Your task to perform on an android device: open app "Walmart Shopping & Grocery" (install if not already installed) and enter user name: "Hans@icloud.com" and password: "executing" Image 0: 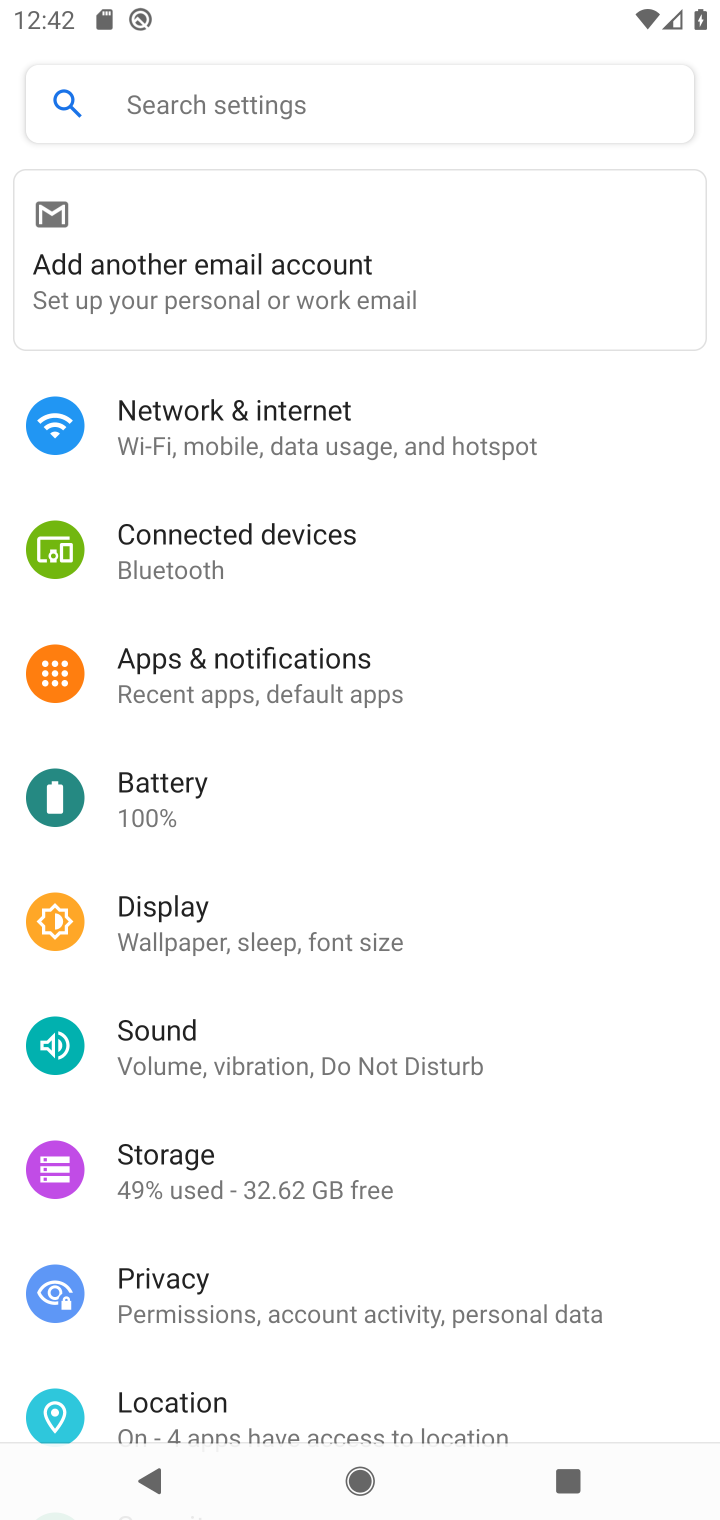
Step 0: press home button
Your task to perform on an android device: open app "Walmart Shopping & Grocery" (install if not already installed) and enter user name: "Hans@icloud.com" and password: "executing" Image 1: 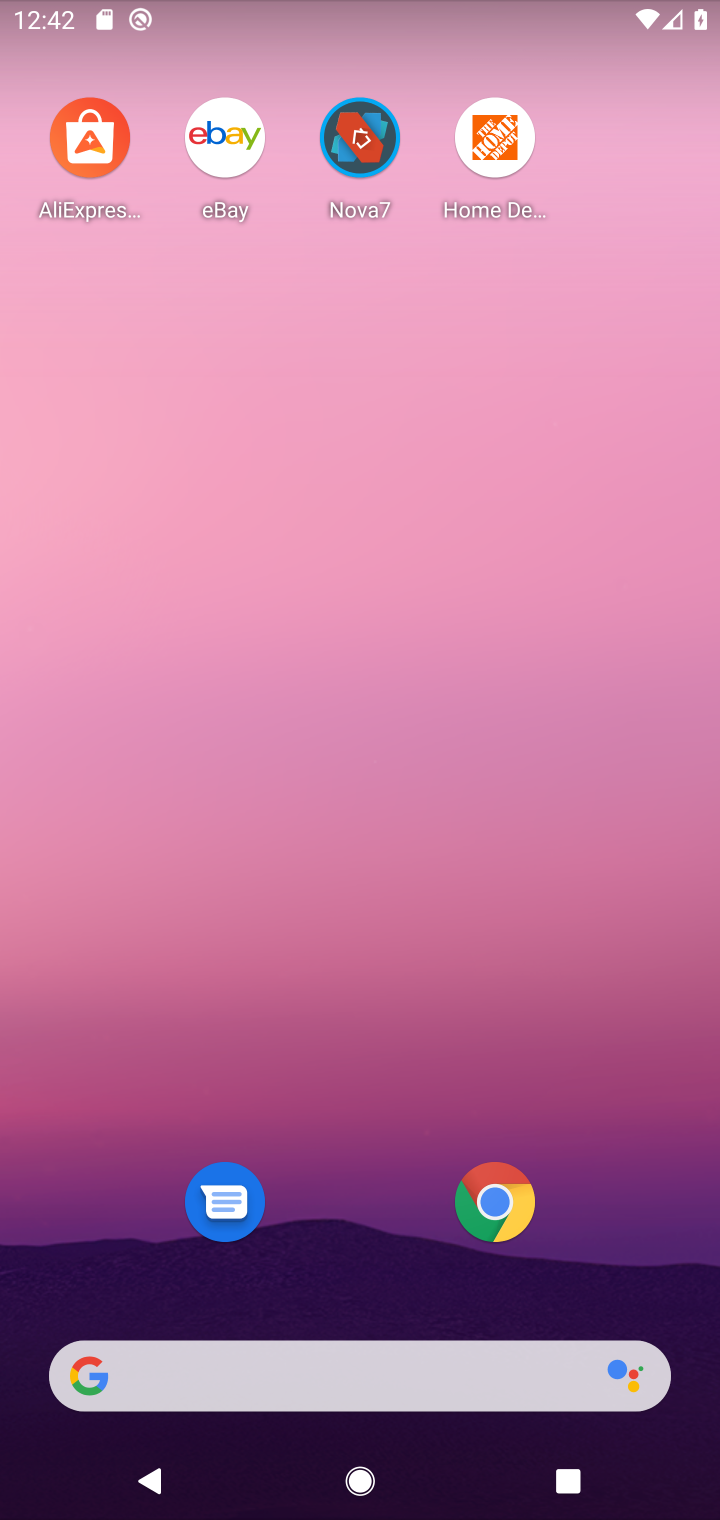
Step 1: drag from (397, 1368) to (339, 95)
Your task to perform on an android device: open app "Walmart Shopping & Grocery" (install if not already installed) and enter user name: "Hans@icloud.com" and password: "executing" Image 2: 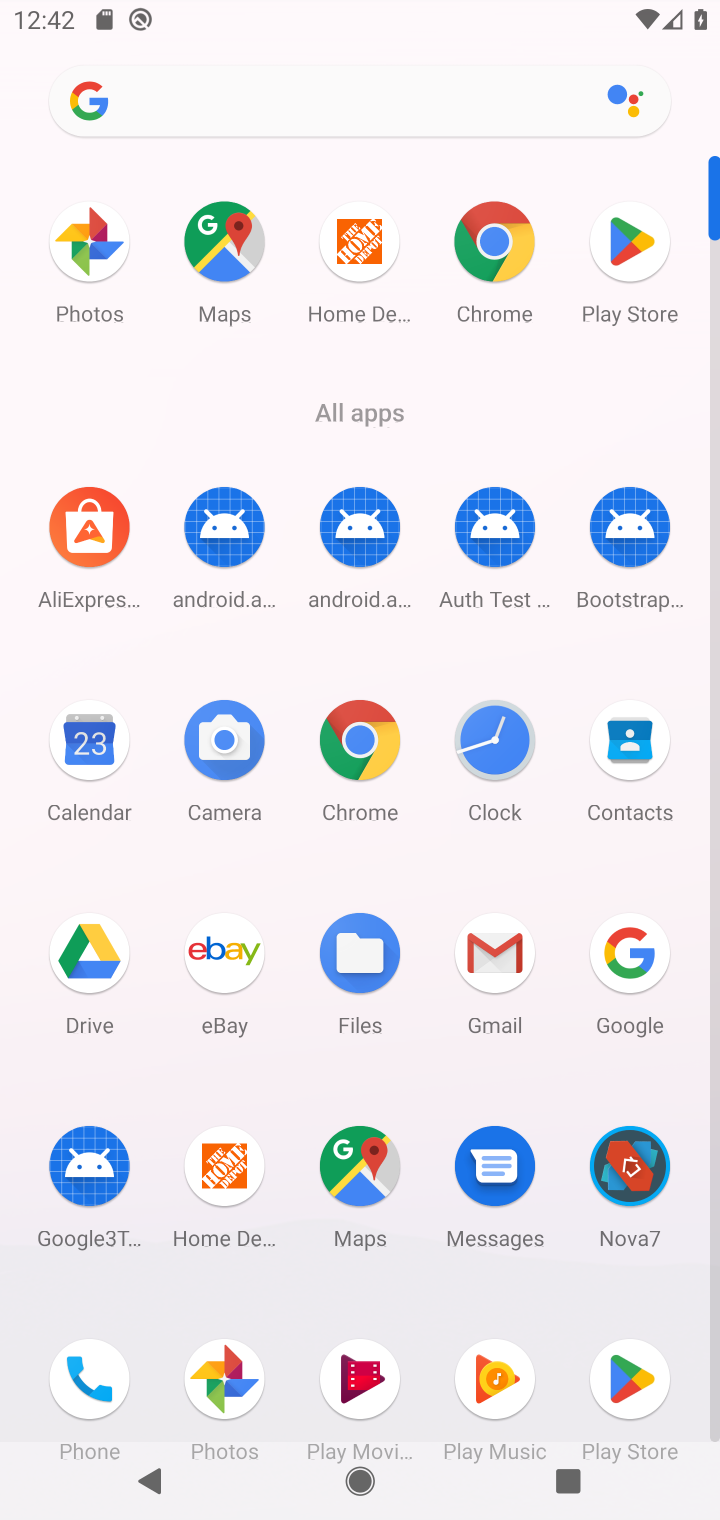
Step 2: click (622, 233)
Your task to perform on an android device: open app "Walmart Shopping & Grocery" (install if not already installed) and enter user name: "Hans@icloud.com" and password: "executing" Image 3: 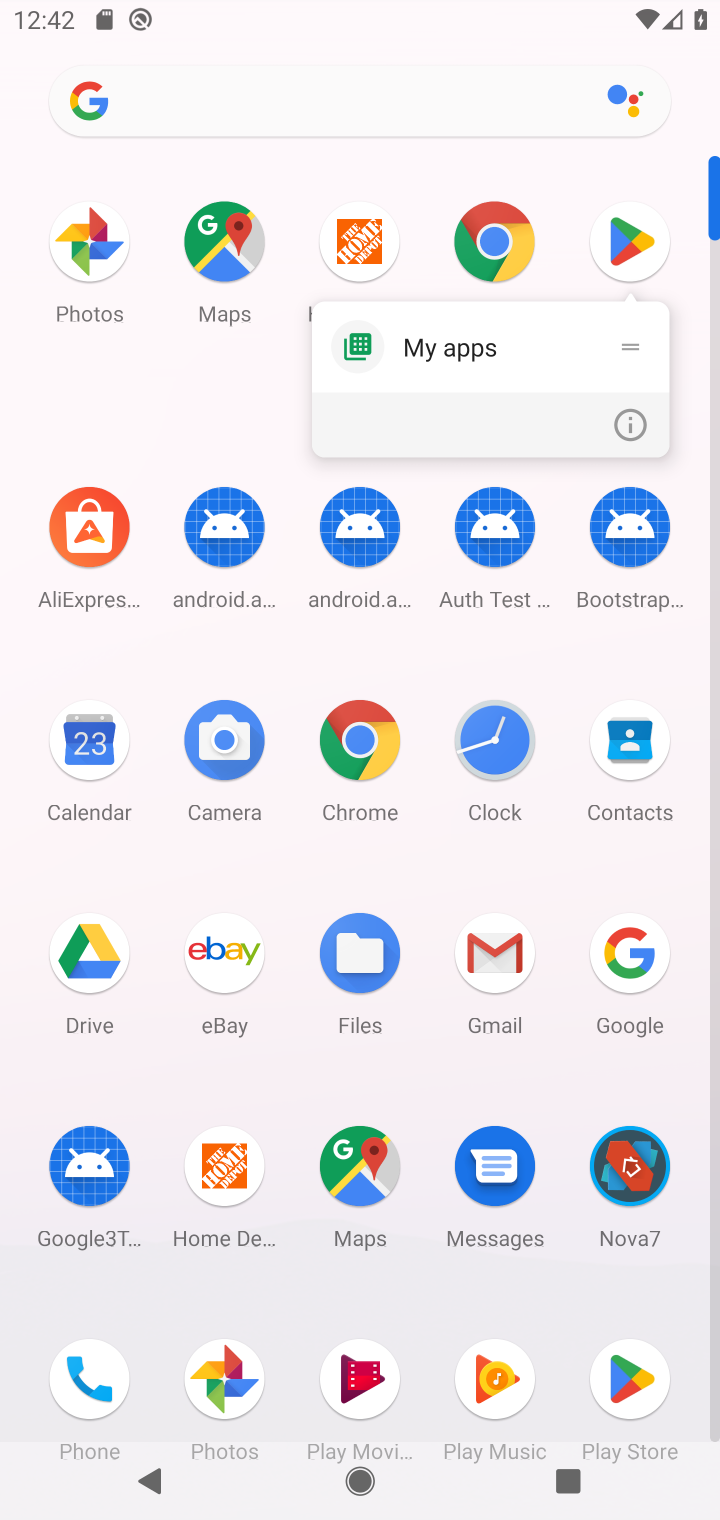
Step 3: click (632, 244)
Your task to perform on an android device: open app "Walmart Shopping & Grocery" (install if not already installed) and enter user name: "Hans@icloud.com" and password: "executing" Image 4: 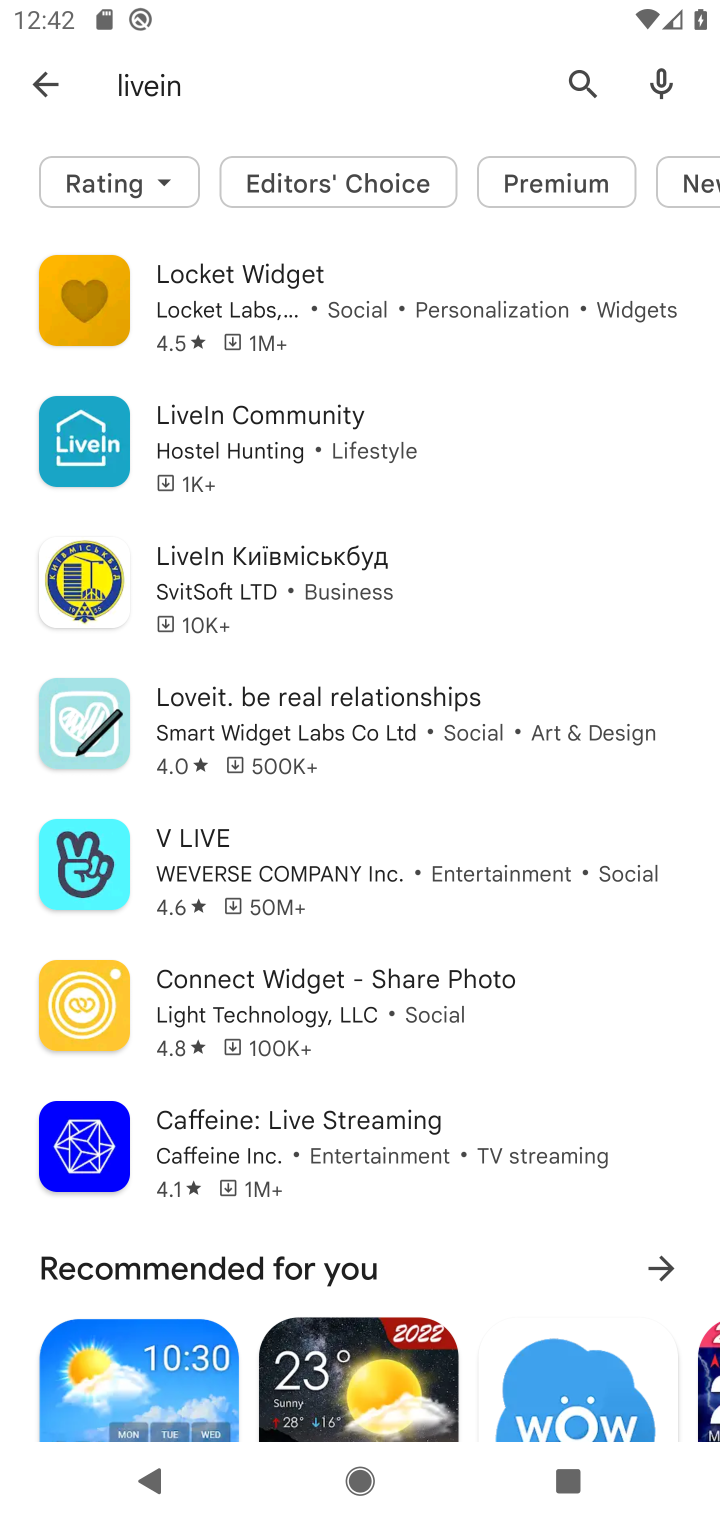
Step 4: click (583, 86)
Your task to perform on an android device: open app "Walmart Shopping & Grocery" (install if not already installed) and enter user name: "Hans@icloud.com" and password: "executing" Image 5: 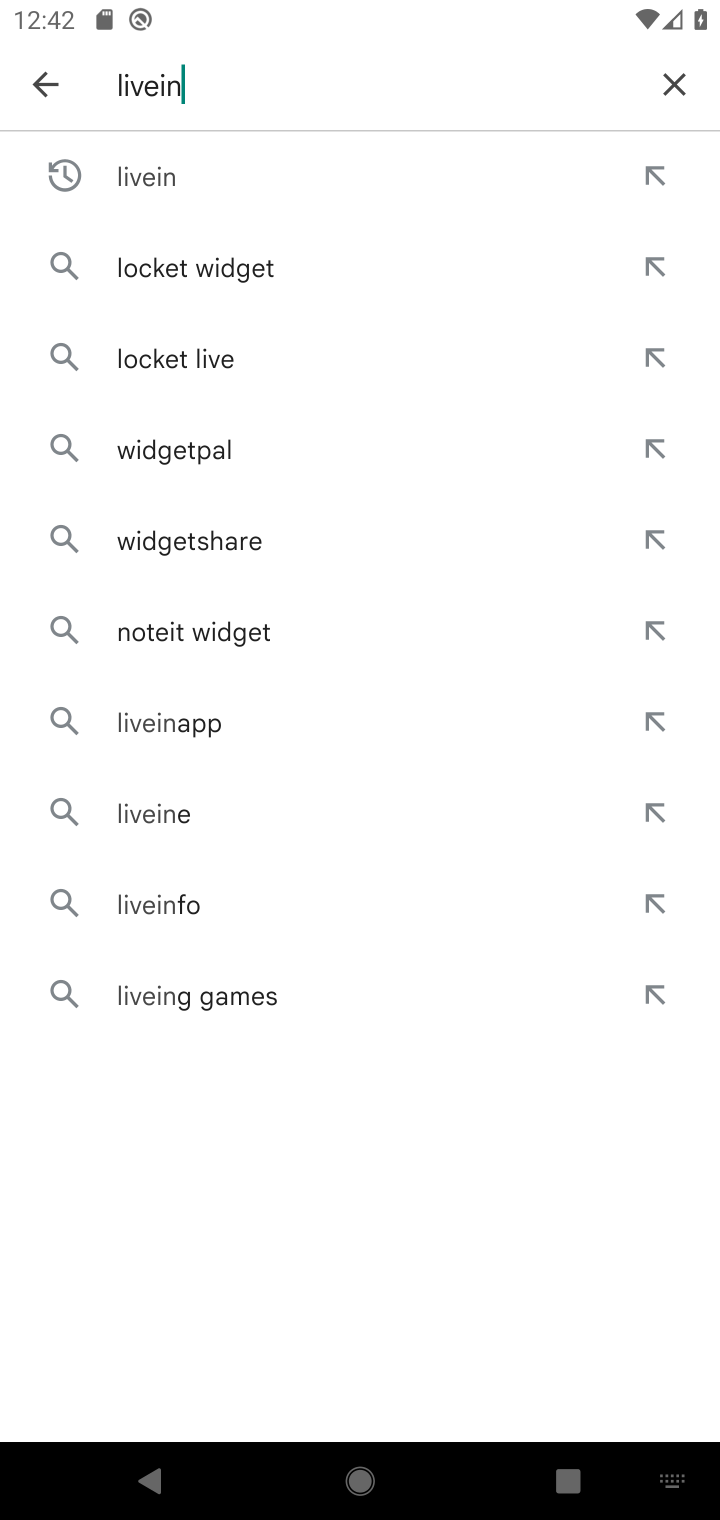
Step 5: click (680, 80)
Your task to perform on an android device: open app "Walmart Shopping & Grocery" (install if not already installed) and enter user name: "Hans@icloud.com" and password: "executing" Image 6: 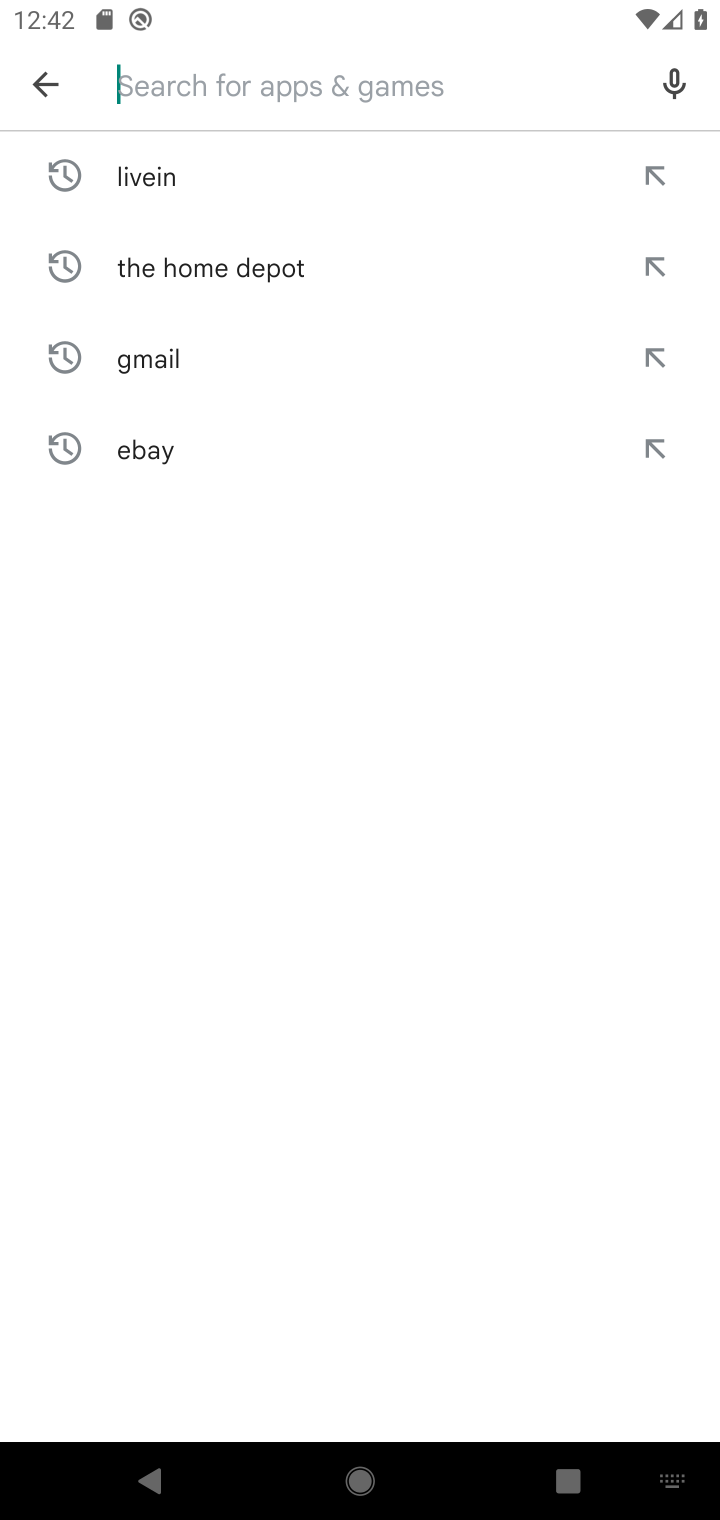
Step 6: type "wakmart"
Your task to perform on an android device: open app "Walmart Shopping & Grocery" (install if not already installed) and enter user name: "Hans@icloud.com" and password: "executing" Image 7: 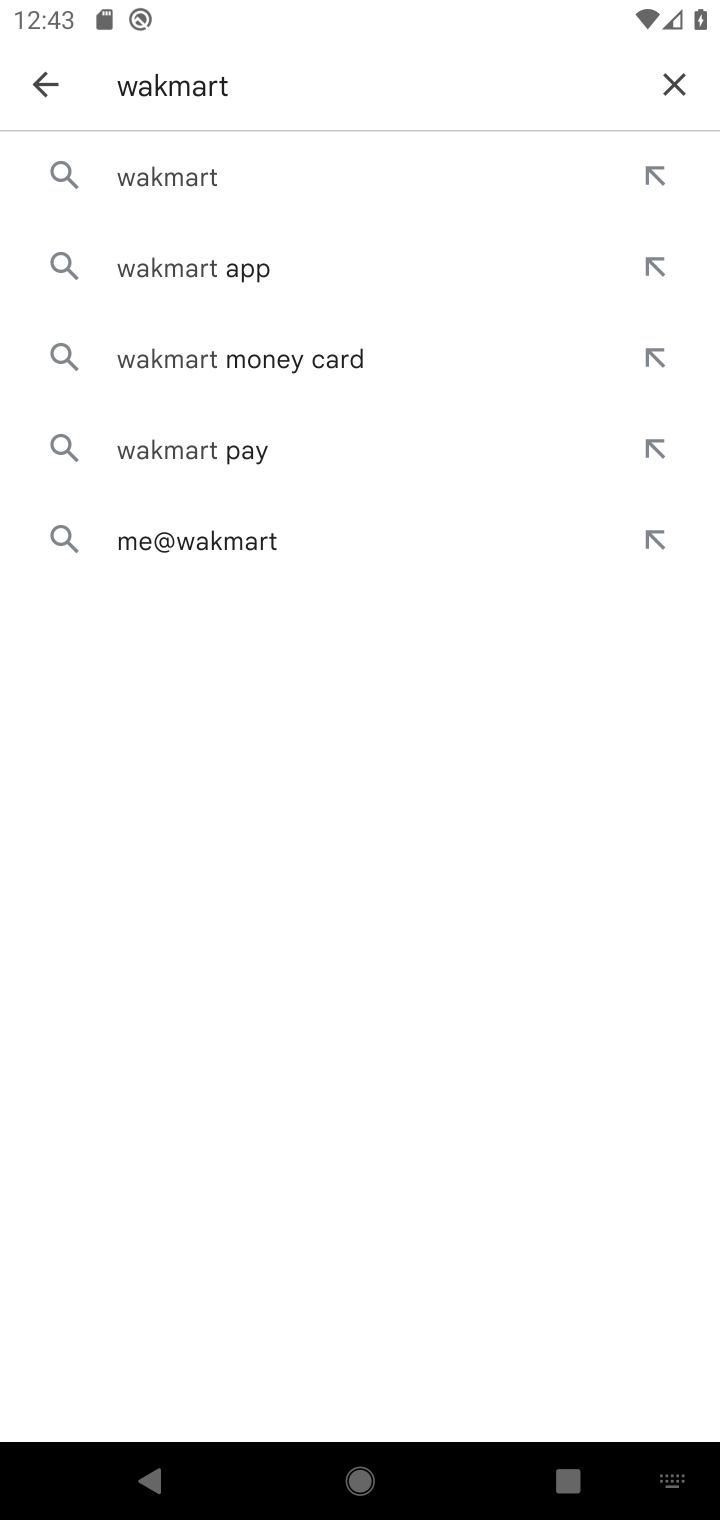
Step 7: click (239, 173)
Your task to perform on an android device: open app "Walmart Shopping & Grocery" (install if not already installed) and enter user name: "Hans@icloud.com" and password: "executing" Image 8: 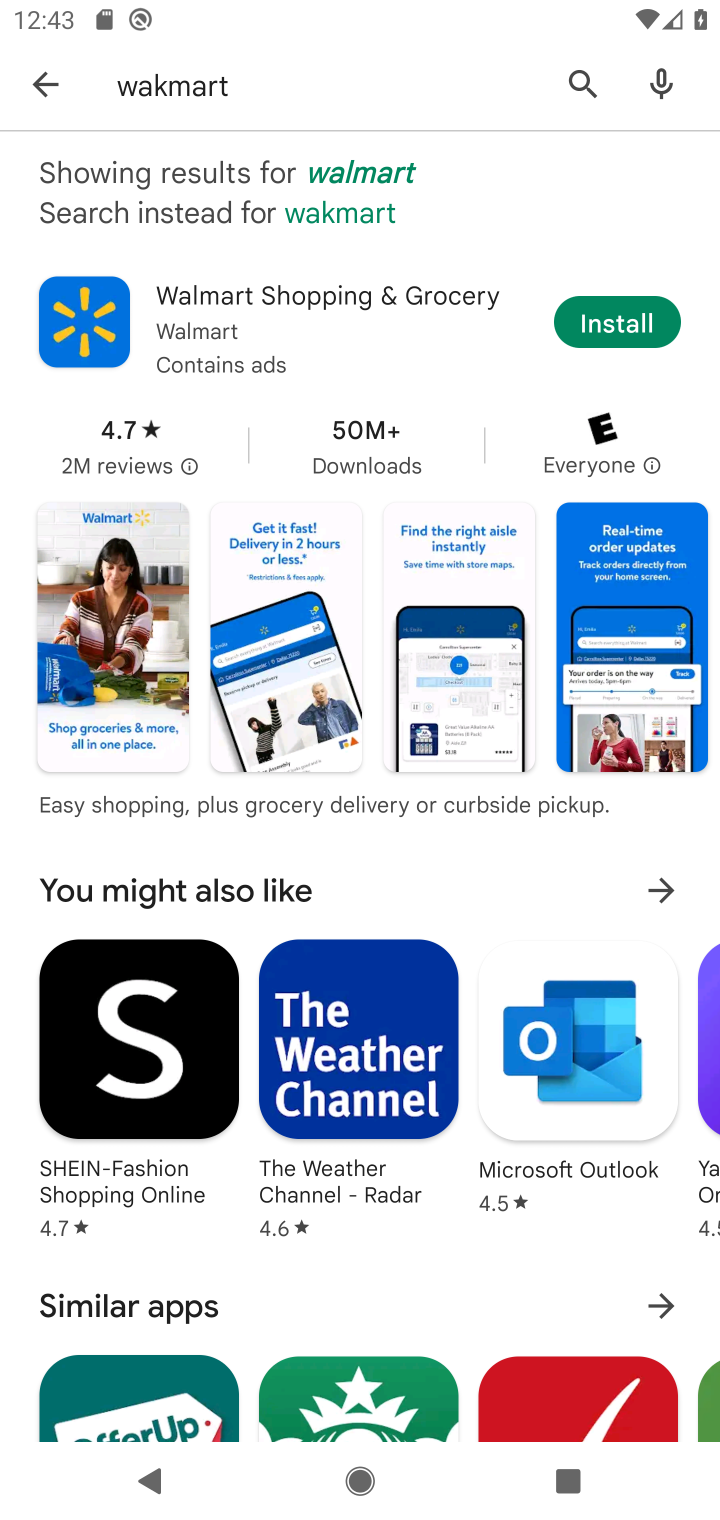
Step 8: click (596, 312)
Your task to perform on an android device: open app "Walmart Shopping & Grocery" (install if not already installed) and enter user name: "Hans@icloud.com" and password: "executing" Image 9: 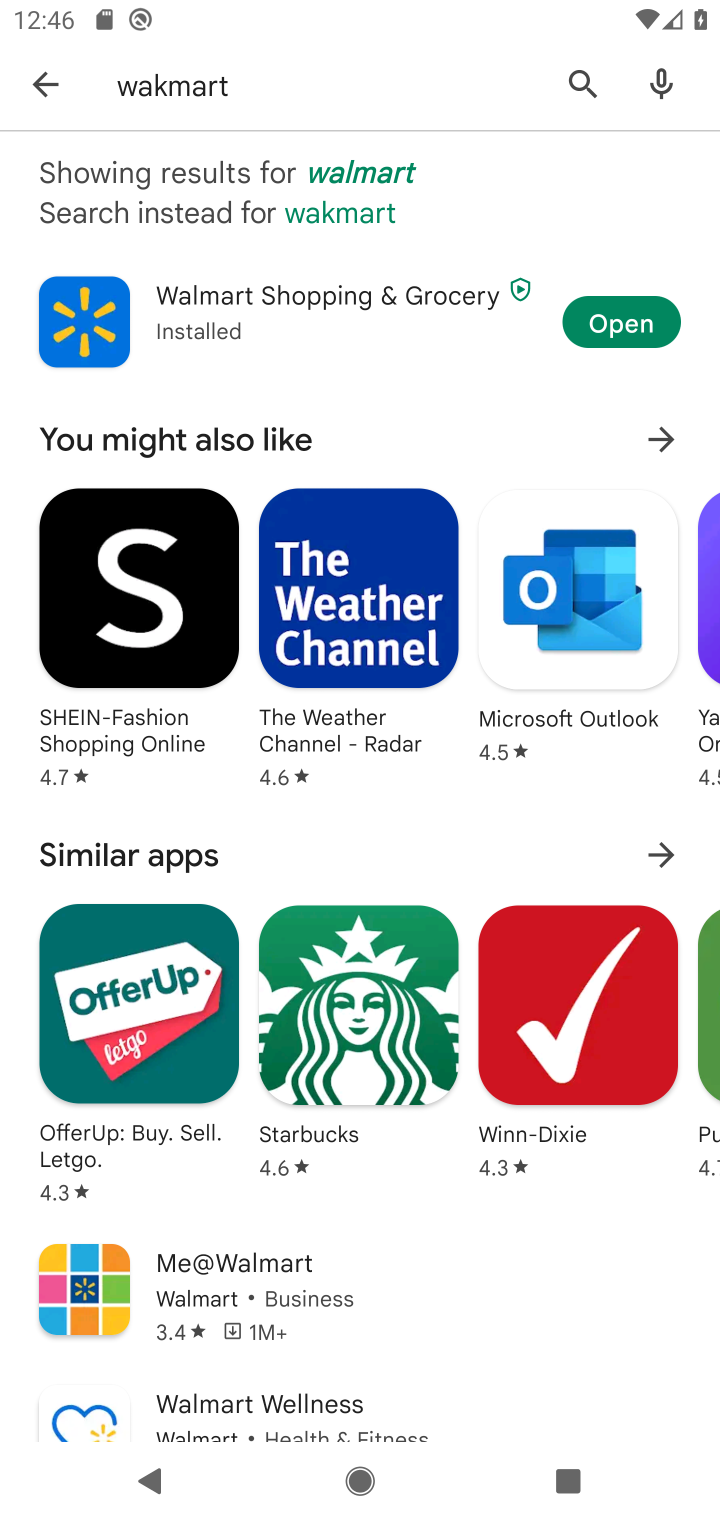
Step 9: click (581, 307)
Your task to perform on an android device: open app "Walmart Shopping & Grocery" (install if not already installed) and enter user name: "Hans@icloud.com" and password: "executing" Image 10: 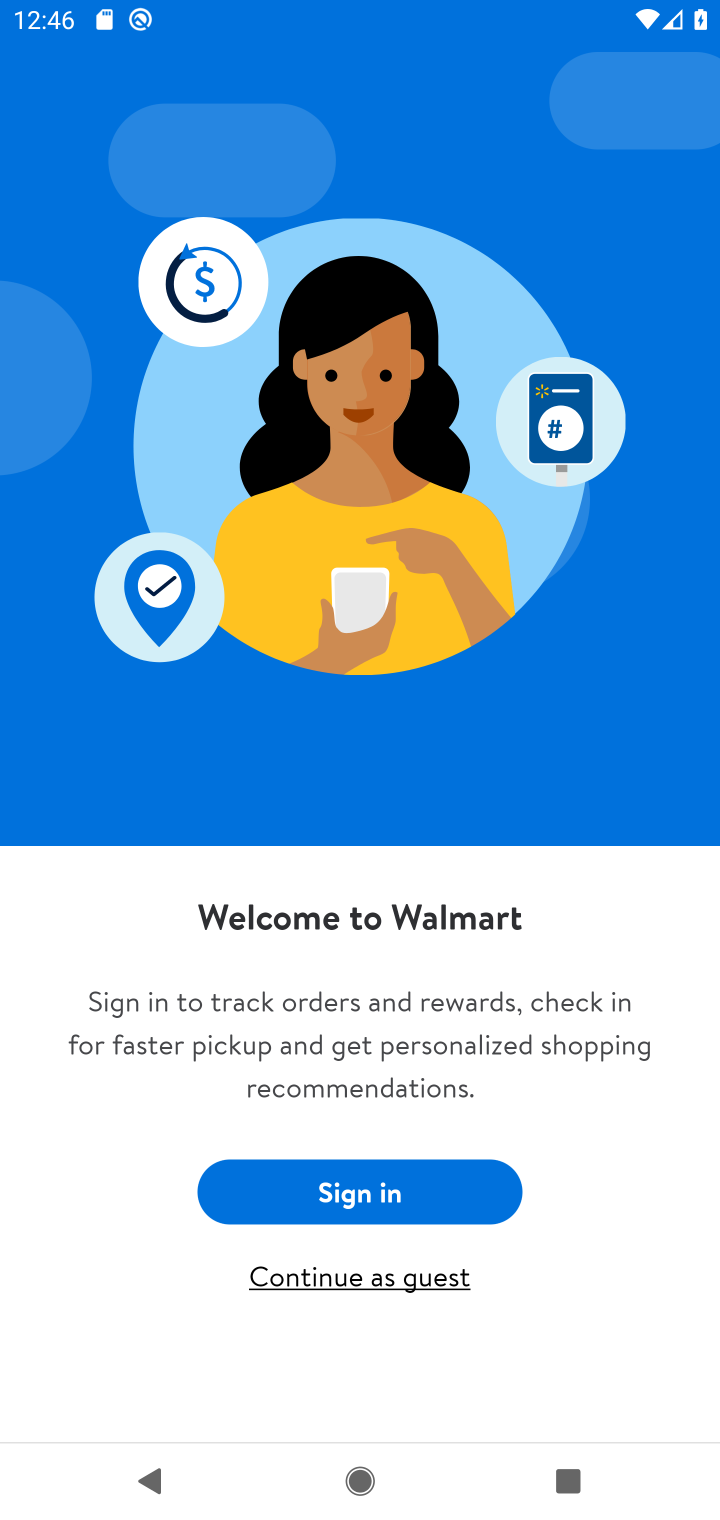
Step 10: click (289, 1209)
Your task to perform on an android device: open app "Walmart Shopping & Grocery" (install if not already installed) and enter user name: "Hans@icloud.com" and password: "executing" Image 11: 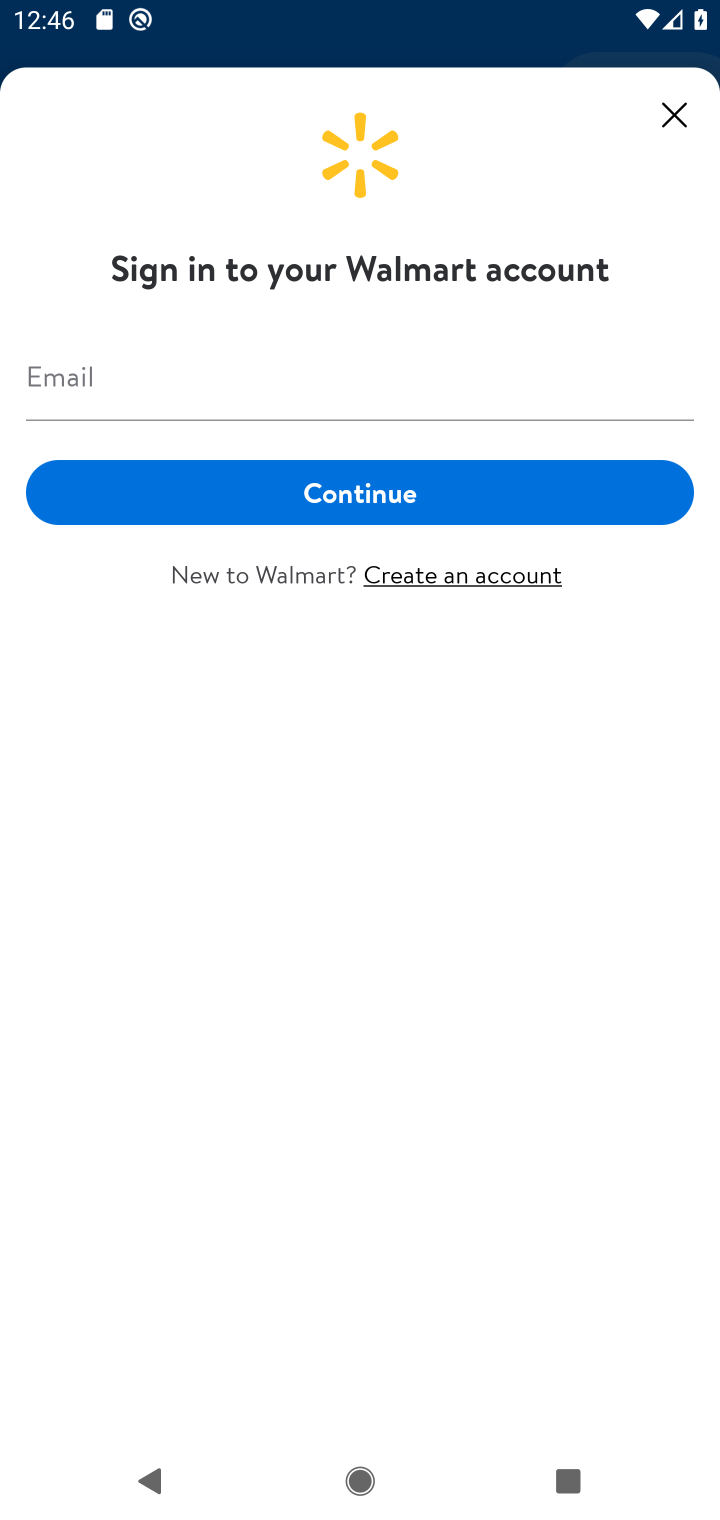
Step 11: click (238, 391)
Your task to perform on an android device: open app "Walmart Shopping & Grocery" (install if not already installed) and enter user name: "Hans@icloud.com" and password: "executing" Image 12: 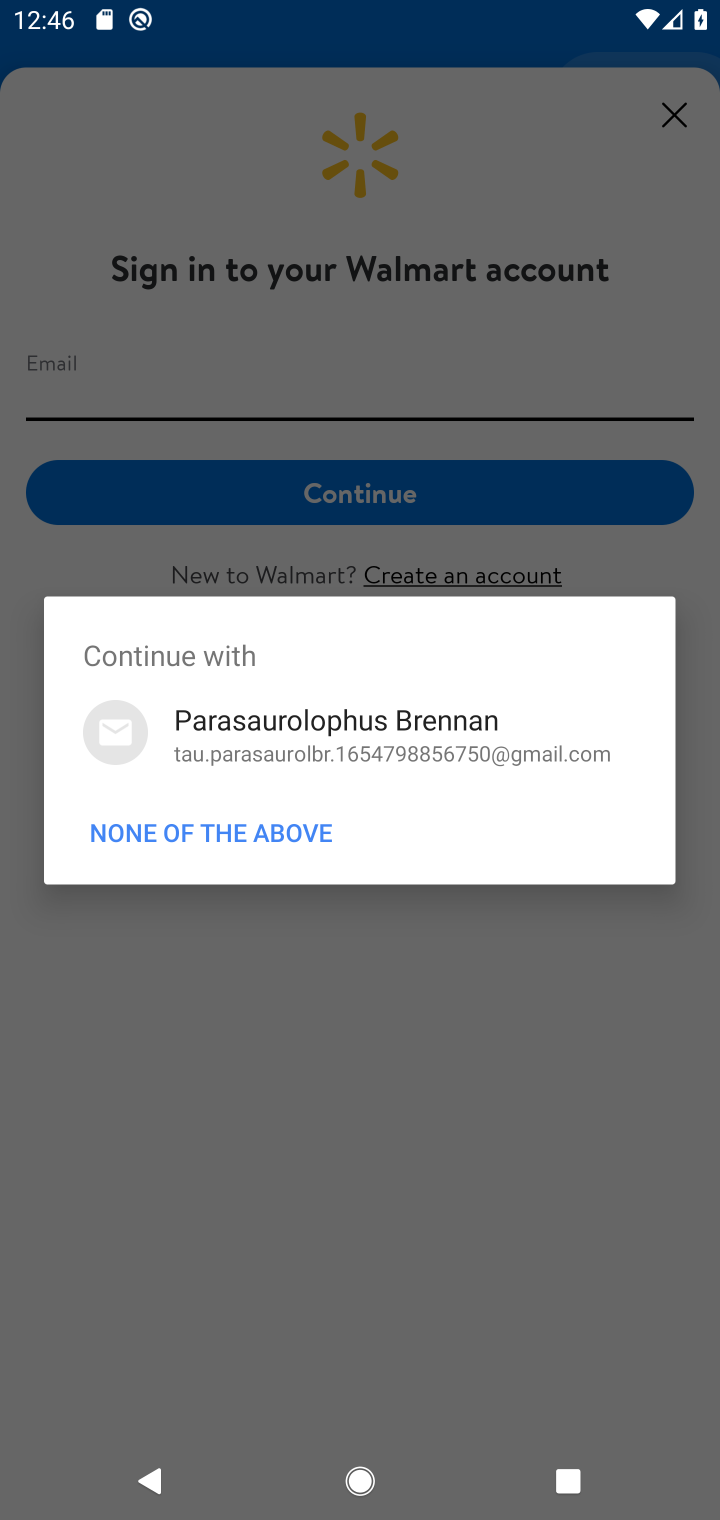
Step 12: click (175, 830)
Your task to perform on an android device: open app "Walmart Shopping & Grocery" (install if not already installed) and enter user name: "Hans@icloud.com" and password: "executing" Image 13: 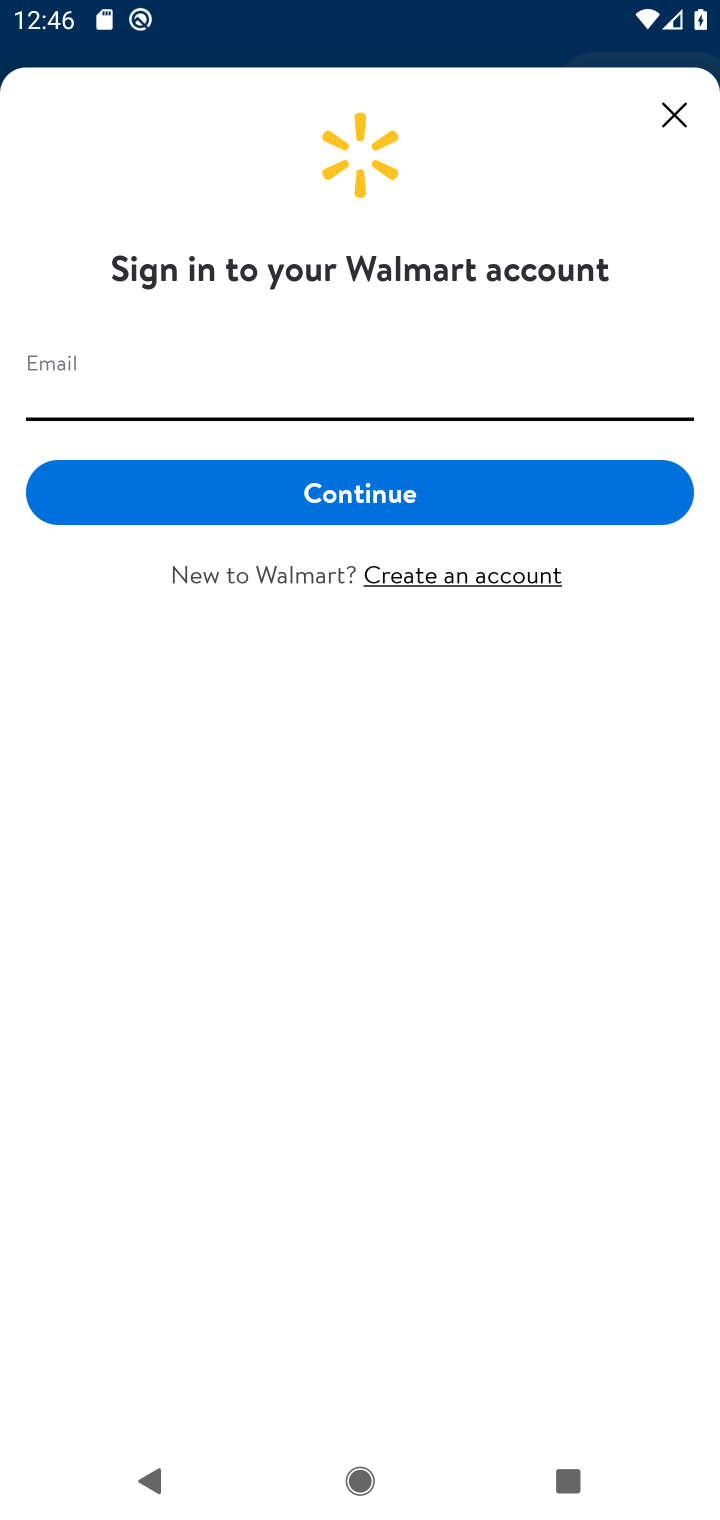
Step 13: click (344, 368)
Your task to perform on an android device: open app "Walmart Shopping & Grocery" (install if not already installed) and enter user name: "Hans@icloud.com" and password: "executing" Image 14: 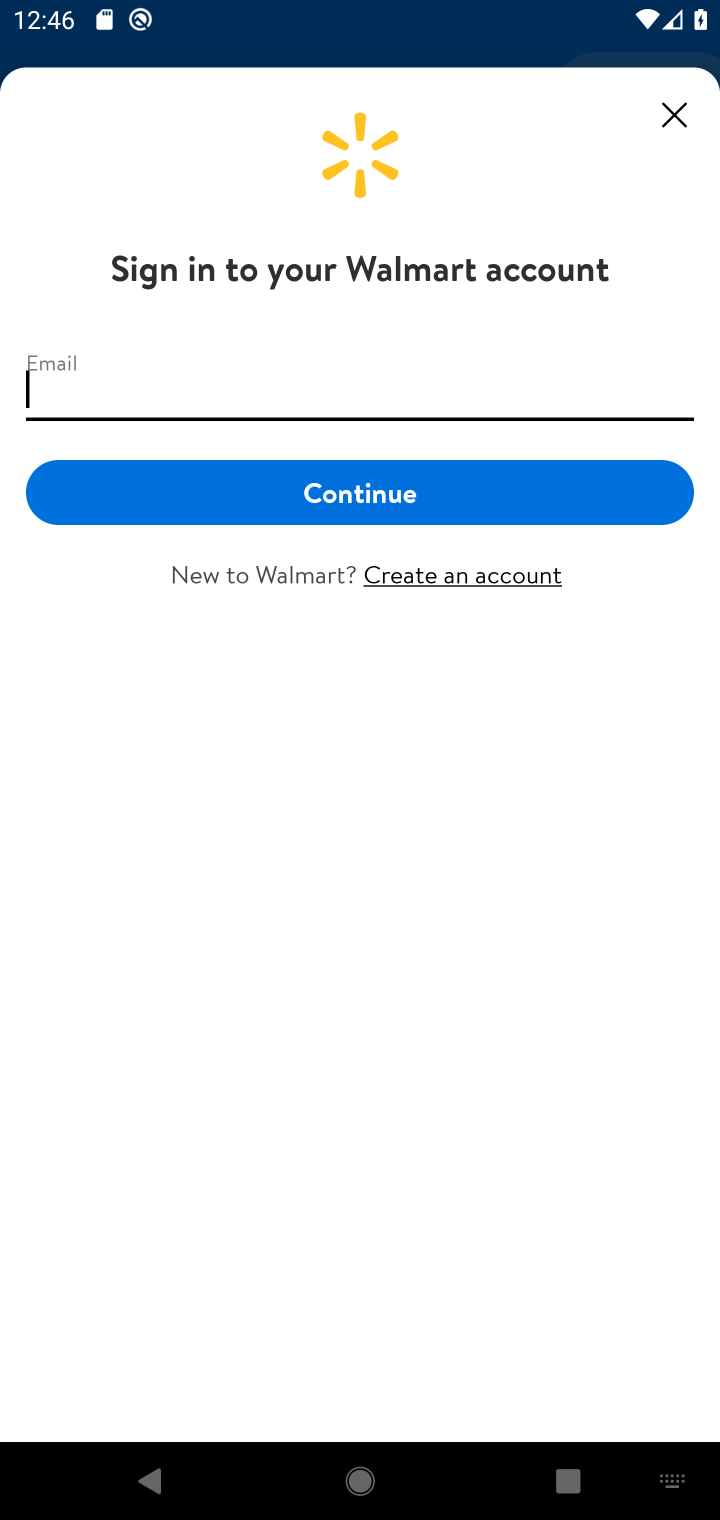
Step 14: type "Hans@icloud.com"
Your task to perform on an android device: open app "Walmart Shopping & Grocery" (install if not already installed) and enter user name: "Hans@icloud.com" and password: "executing" Image 15: 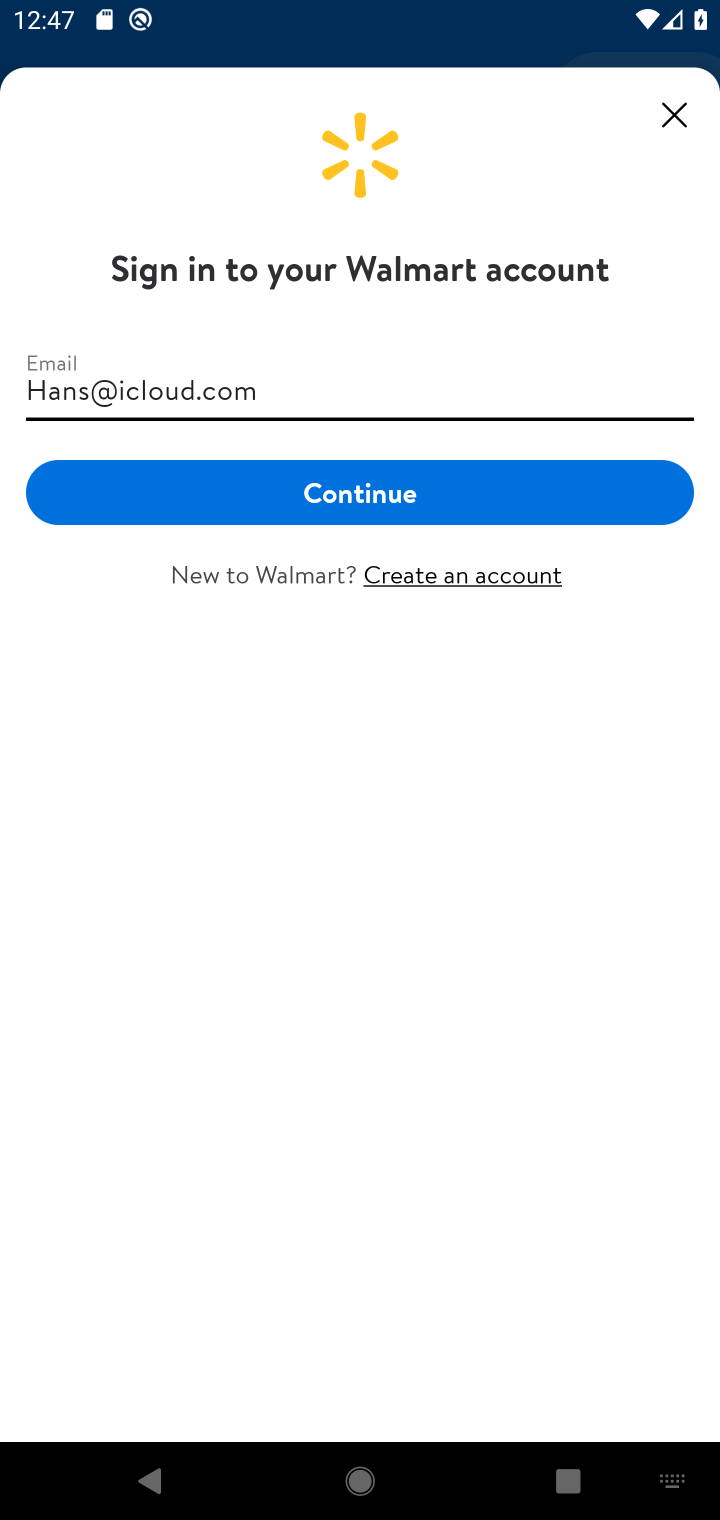
Step 15: click (406, 498)
Your task to perform on an android device: open app "Walmart Shopping & Grocery" (install if not already installed) and enter user name: "Hans@icloud.com" and password: "executing" Image 16: 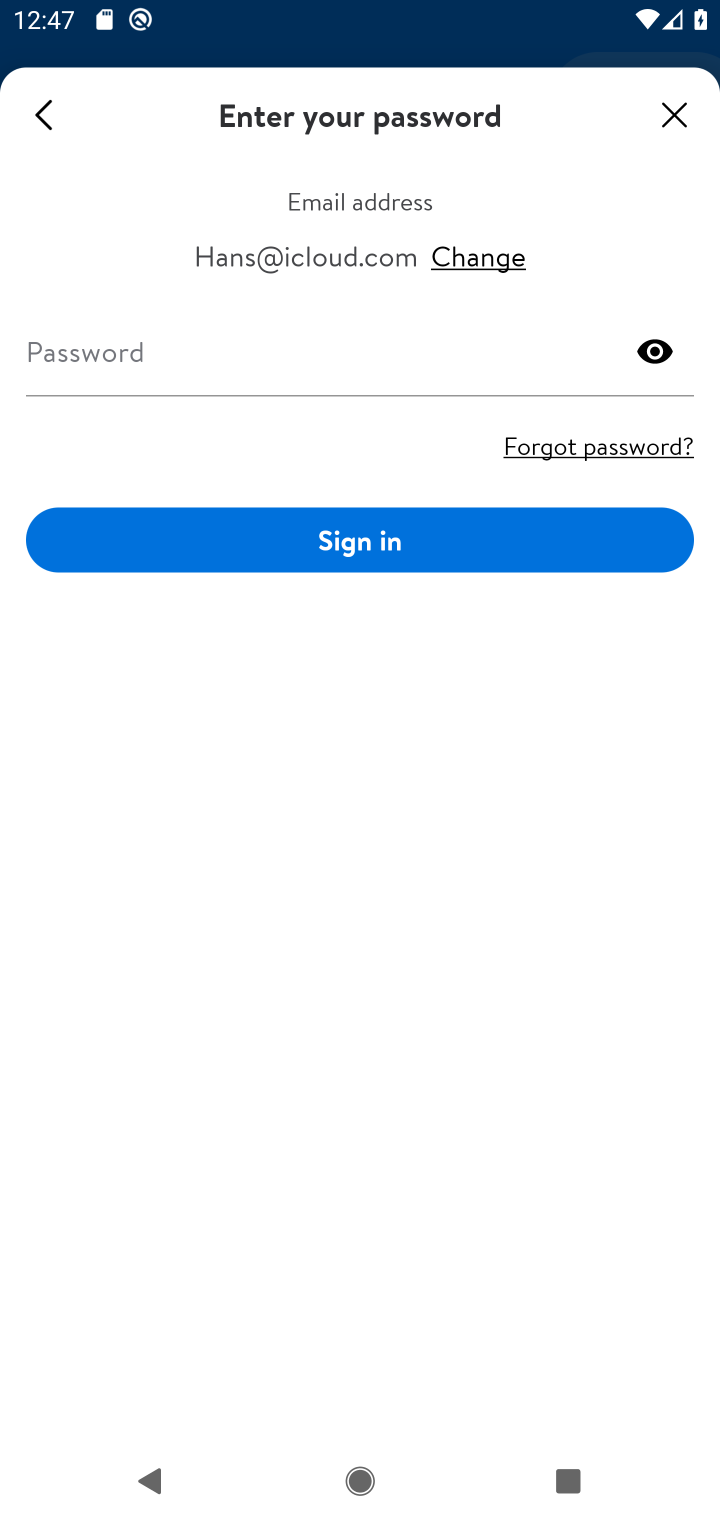
Step 16: click (266, 374)
Your task to perform on an android device: open app "Walmart Shopping & Grocery" (install if not already installed) and enter user name: "Hans@icloud.com" and password: "executing" Image 17: 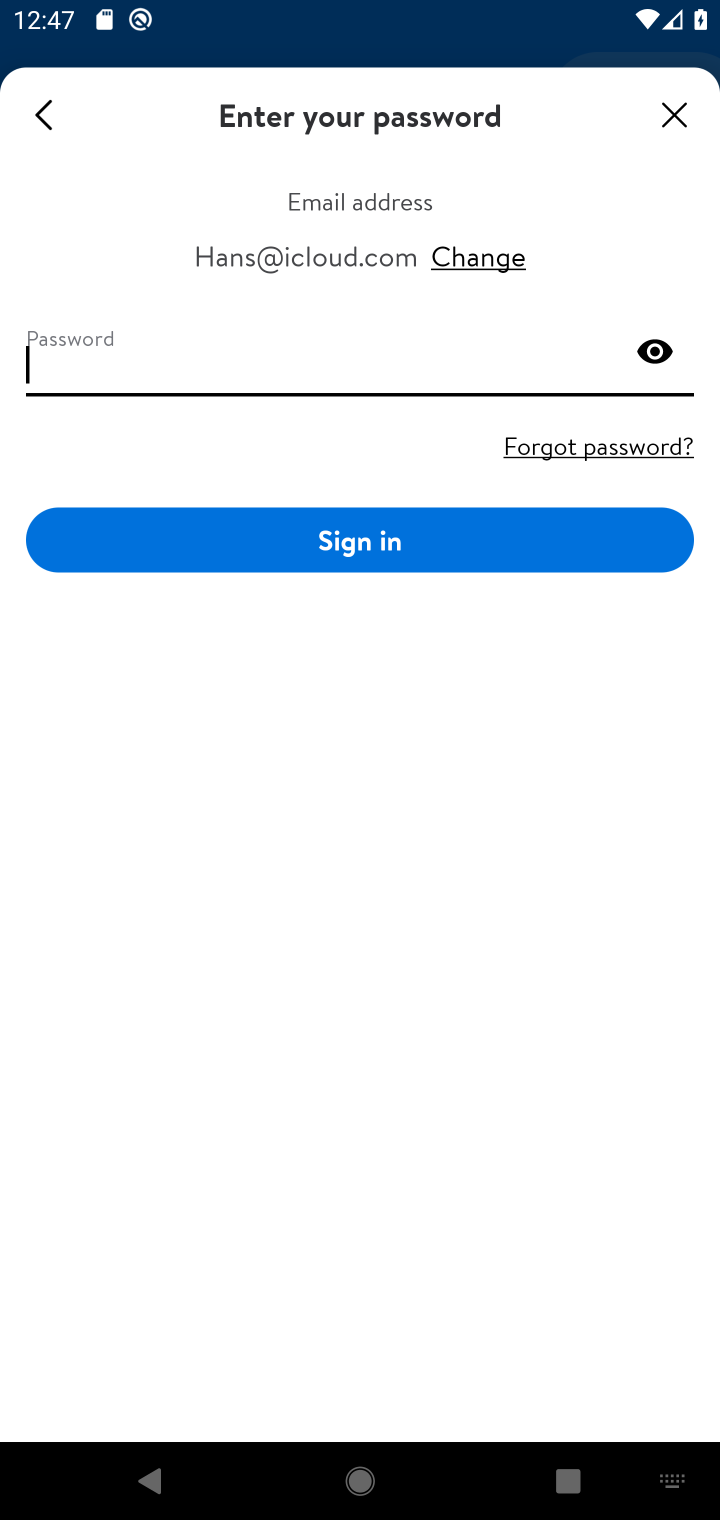
Step 17: type "executing"
Your task to perform on an android device: open app "Walmart Shopping & Grocery" (install if not already installed) and enter user name: "Hans@icloud.com" and password: "executing" Image 18: 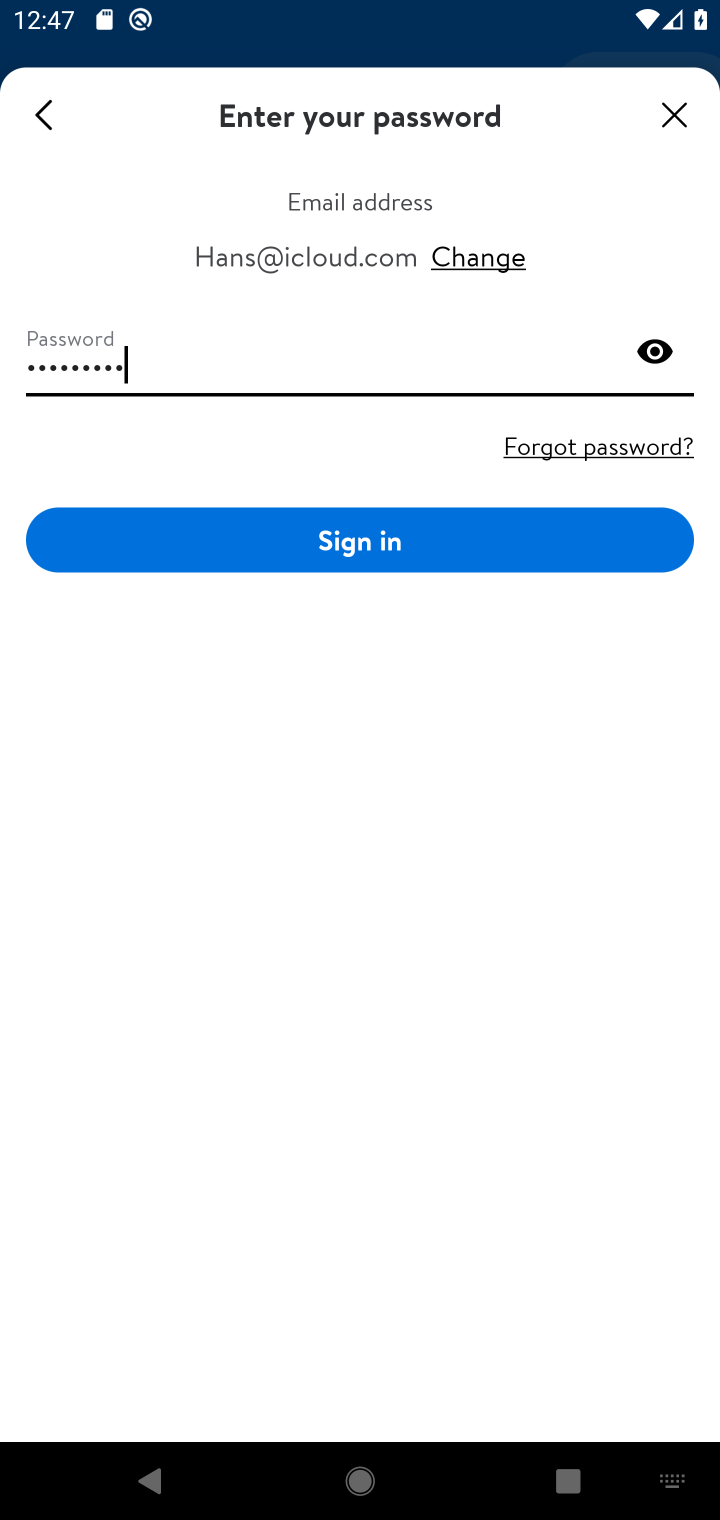
Step 18: task complete